Your task to perform on an android device: turn on location history Image 0: 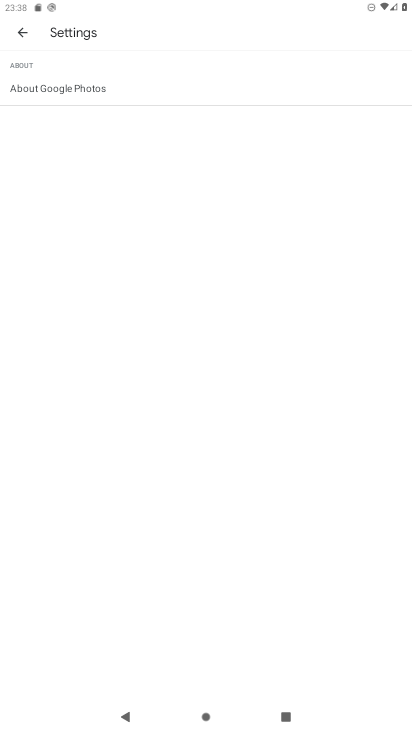
Step 0: press home button
Your task to perform on an android device: turn on location history Image 1: 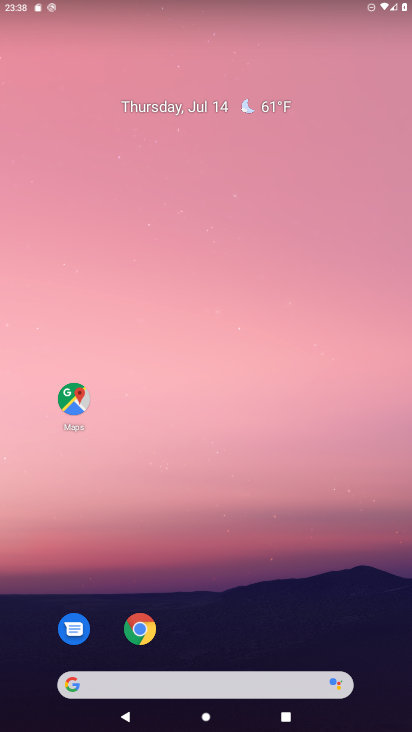
Step 1: drag from (194, 637) to (185, 73)
Your task to perform on an android device: turn on location history Image 2: 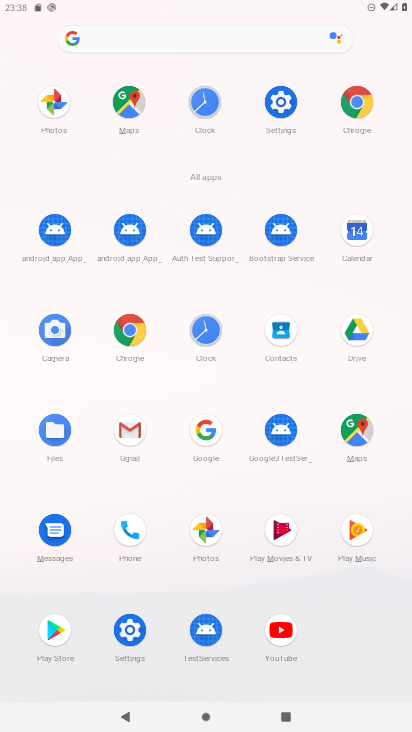
Step 2: click (283, 86)
Your task to perform on an android device: turn on location history Image 3: 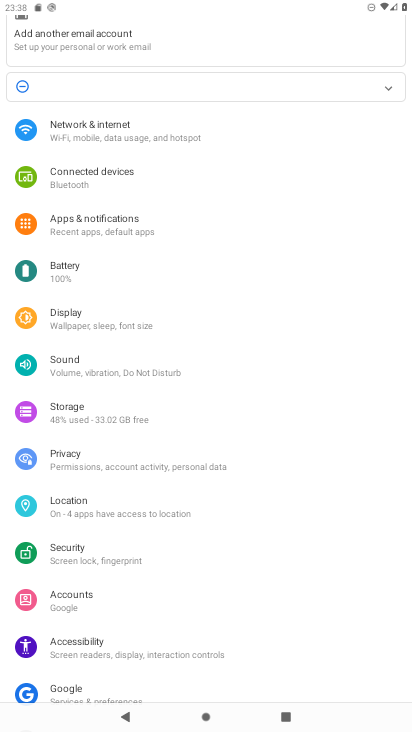
Step 3: click (108, 498)
Your task to perform on an android device: turn on location history Image 4: 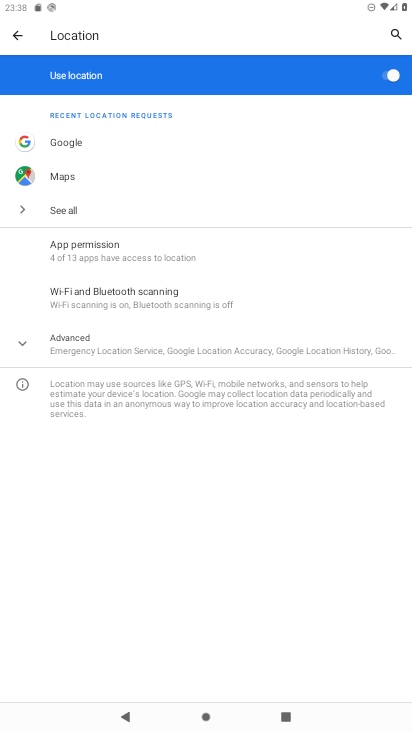
Step 4: click (72, 359)
Your task to perform on an android device: turn on location history Image 5: 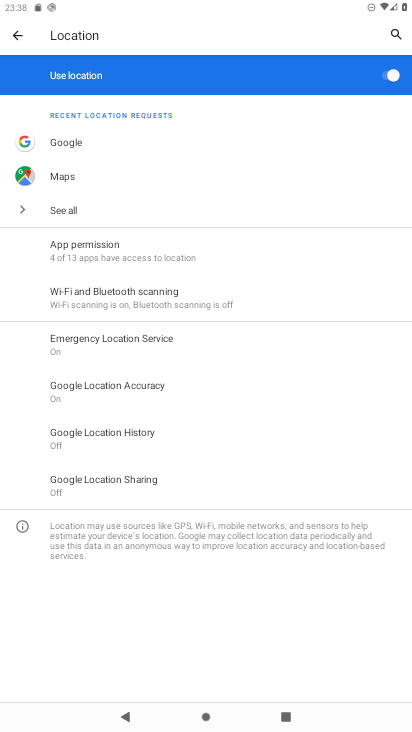
Step 5: click (198, 436)
Your task to perform on an android device: turn on location history Image 6: 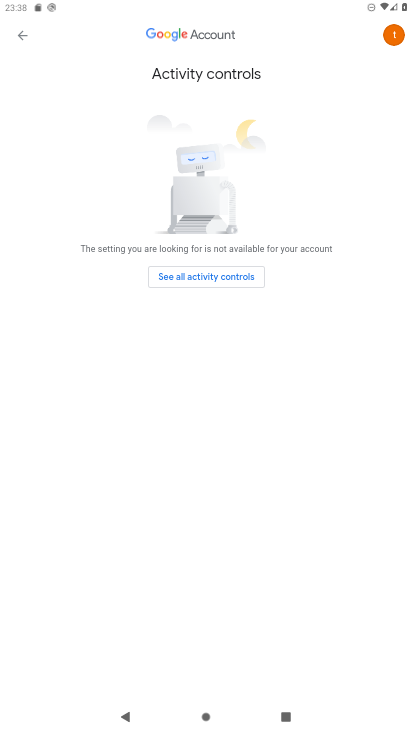
Step 6: task complete